Your task to perform on an android device: change notifications settings Image 0: 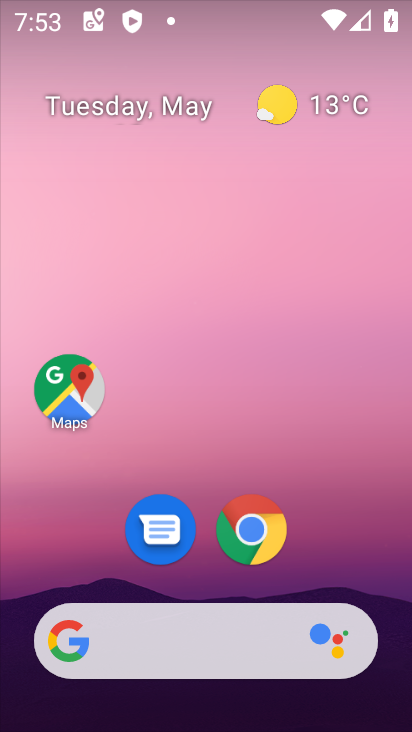
Step 0: drag from (344, 541) to (79, 19)
Your task to perform on an android device: change notifications settings Image 1: 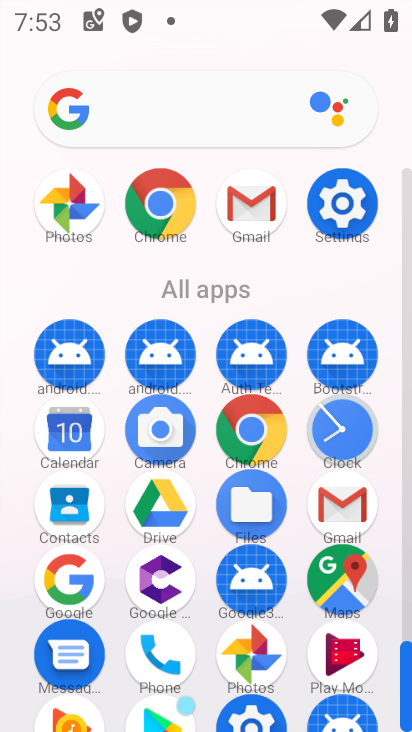
Step 1: click (331, 228)
Your task to perform on an android device: change notifications settings Image 2: 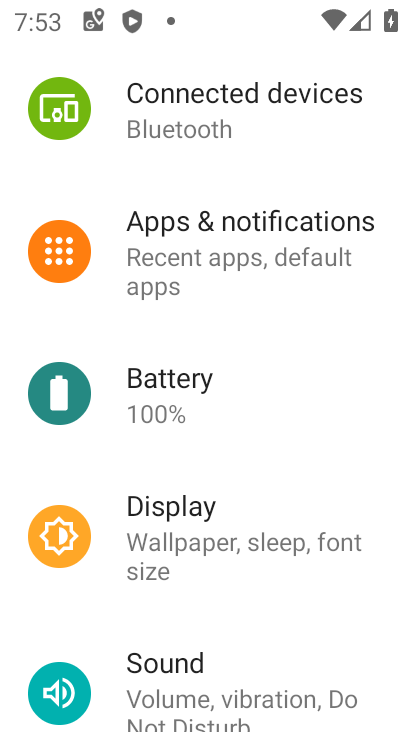
Step 2: click (267, 285)
Your task to perform on an android device: change notifications settings Image 3: 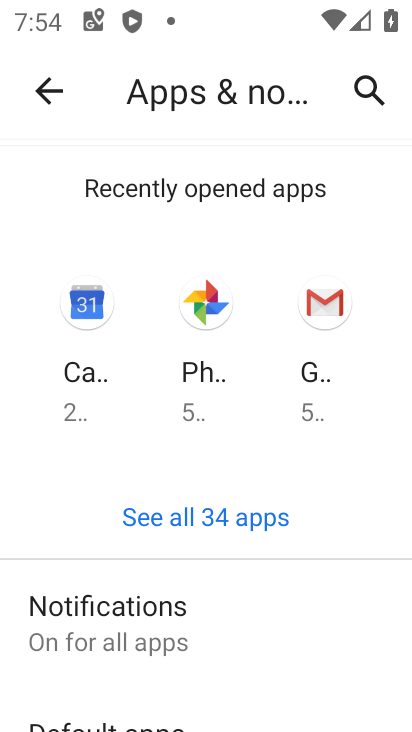
Step 3: task complete